Your task to perform on an android device: Open sound settings Image 0: 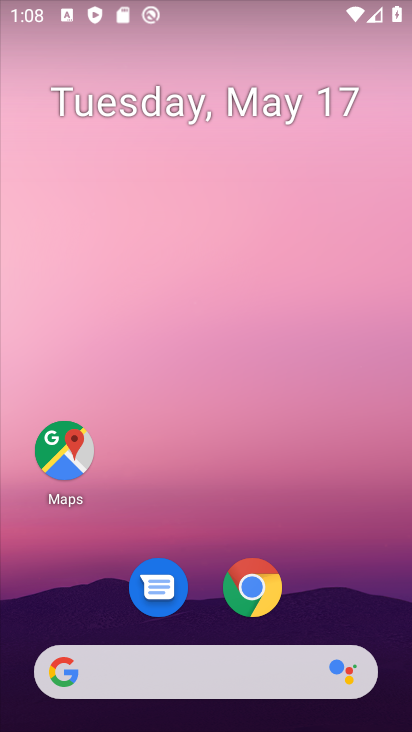
Step 0: click (256, 81)
Your task to perform on an android device: Open sound settings Image 1: 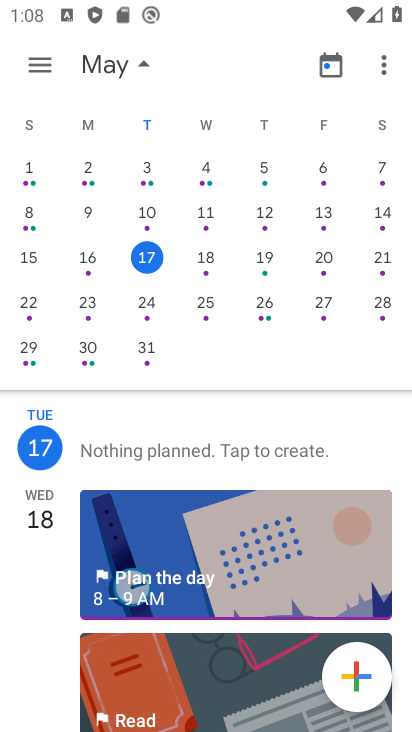
Step 1: click (124, 58)
Your task to perform on an android device: Open sound settings Image 2: 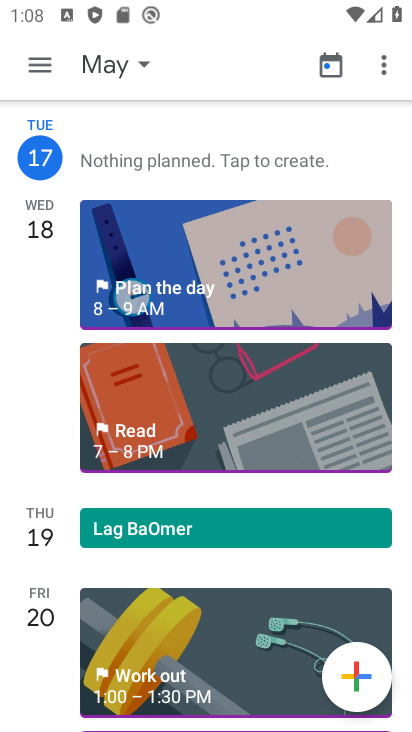
Step 2: click (125, 58)
Your task to perform on an android device: Open sound settings Image 3: 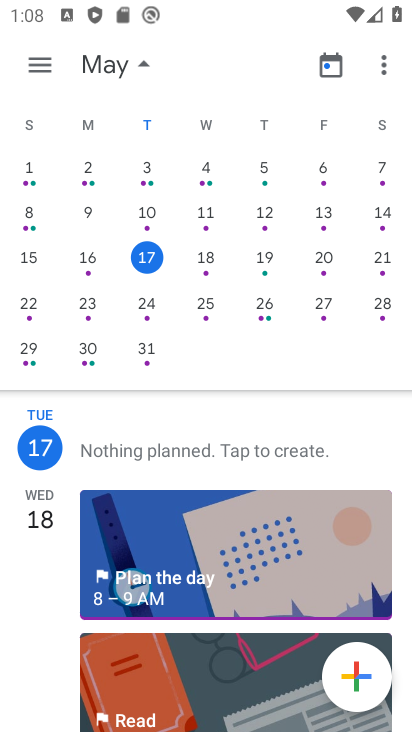
Step 3: press home button
Your task to perform on an android device: Open sound settings Image 4: 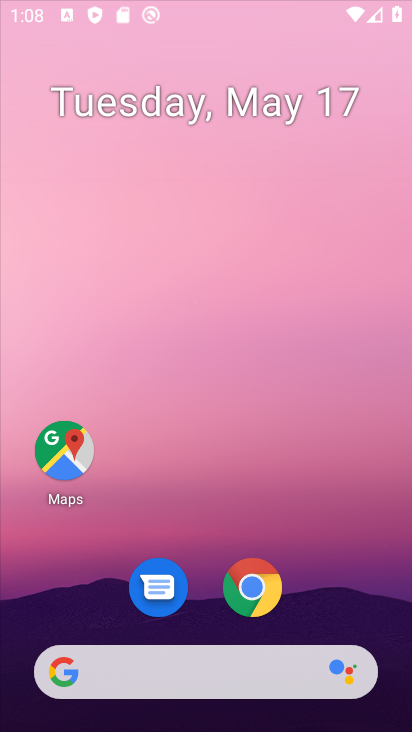
Step 4: drag from (193, 590) to (310, 8)
Your task to perform on an android device: Open sound settings Image 5: 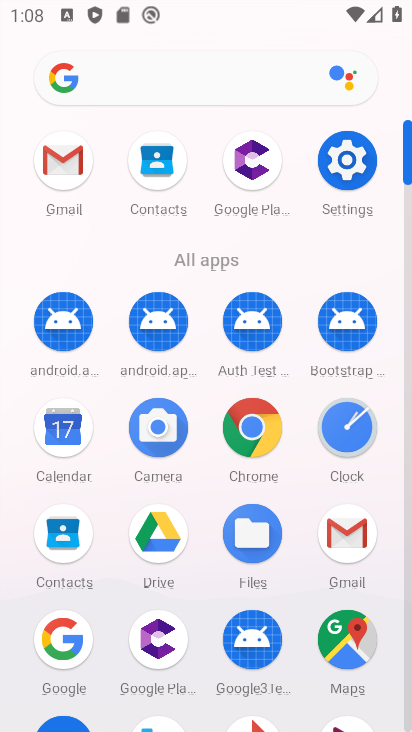
Step 5: click (354, 155)
Your task to perform on an android device: Open sound settings Image 6: 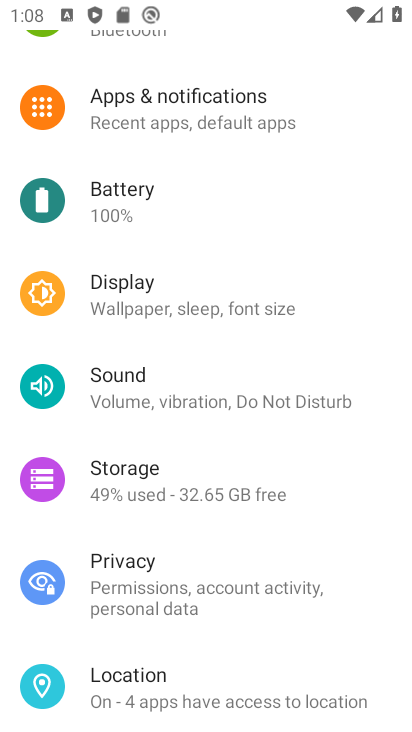
Step 6: click (162, 375)
Your task to perform on an android device: Open sound settings Image 7: 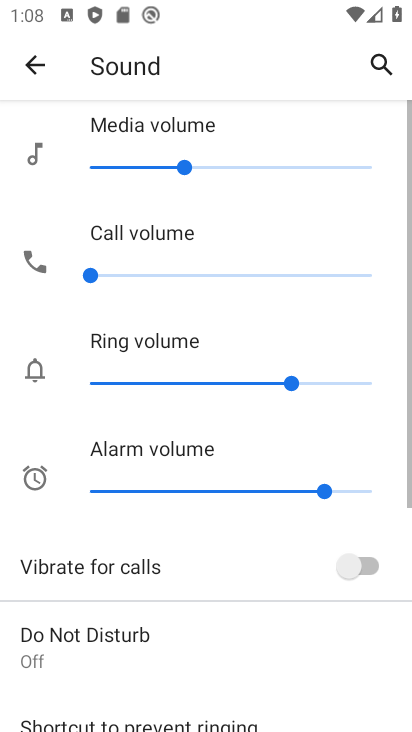
Step 7: task complete